Your task to perform on an android device: turn on showing notifications on the lock screen Image 0: 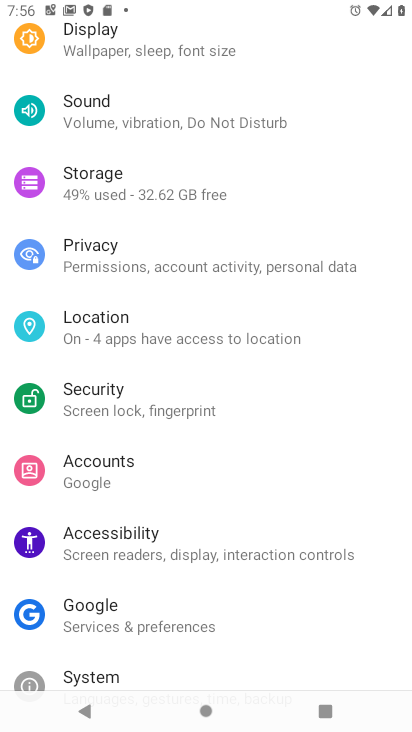
Step 0: drag from (169, 323) to (77, 725)
Your task to perform on an android device: turn on showing notifications on the lock screen Image 1: 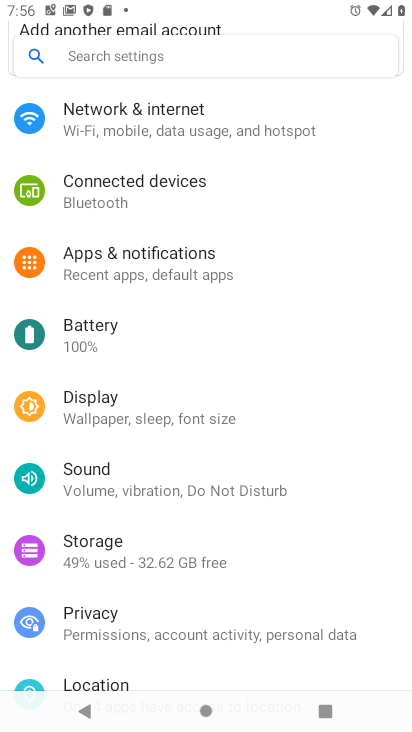
Step 1: click (201, 252)
Your task to perform on an android device: turn on showing notifications on the lock screen Image 2: 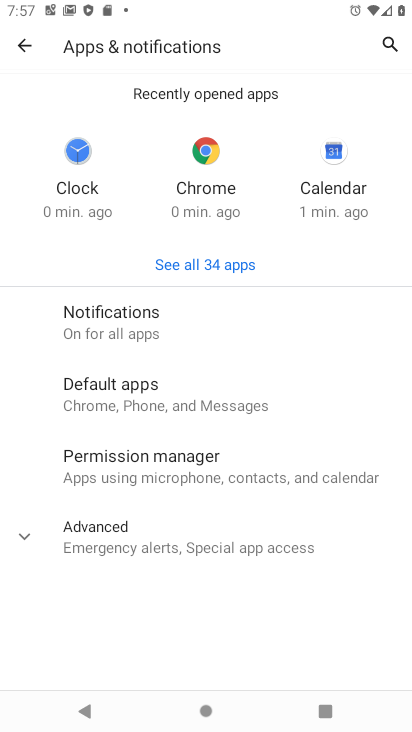
Step 2: click (108, 314)
Your task to perform on an android device: turn on showing notifications on the lock screen Image 3: 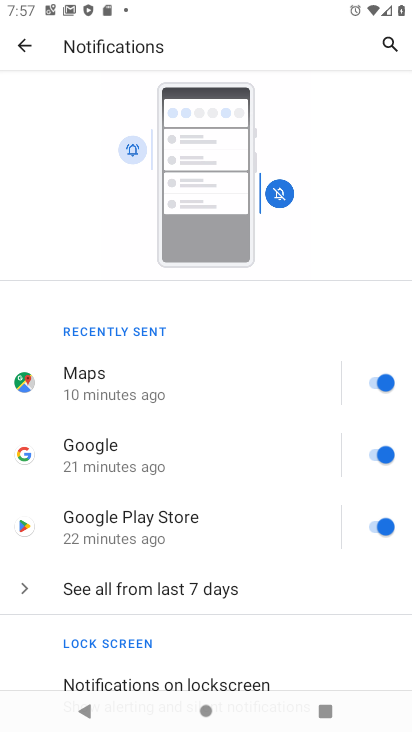
Step 3: drag from (147, 647) to (138, 97)
Your task to perform on an android device: turn on showing notifications on the lock screen Image 4: 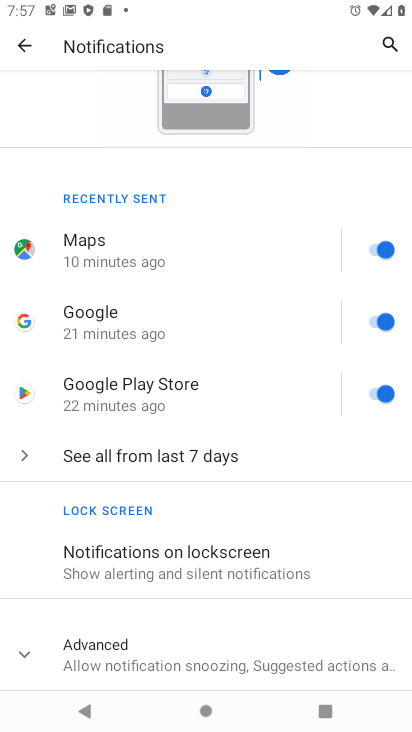
Step 4: click (158, 562)
Your task to perform on an android device: turn on showing notifications on the lock screen Image 5: 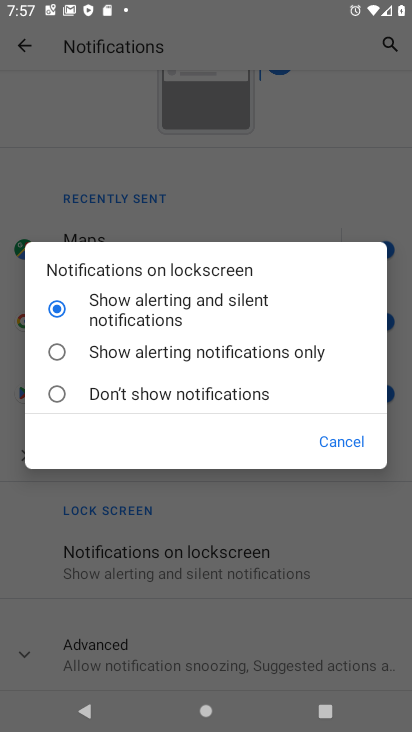
Step 5: click (117, 353)
Your task to perform on an android device: turn on showing notifications on the lock screen Image 6: 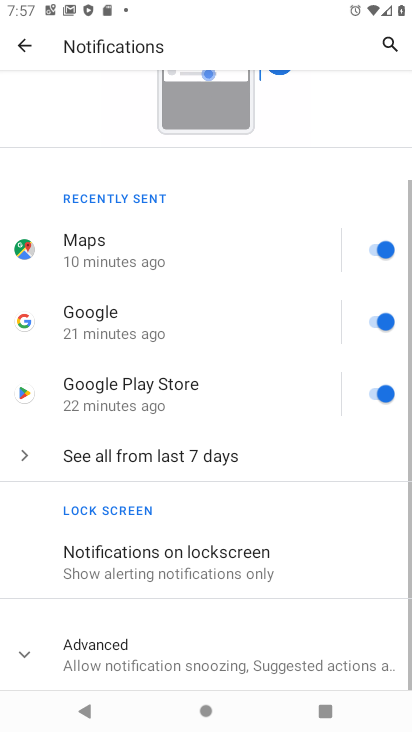
Step 6: task complete